Your task to perform on an android device: snooze an email in the gmail app Image 0: 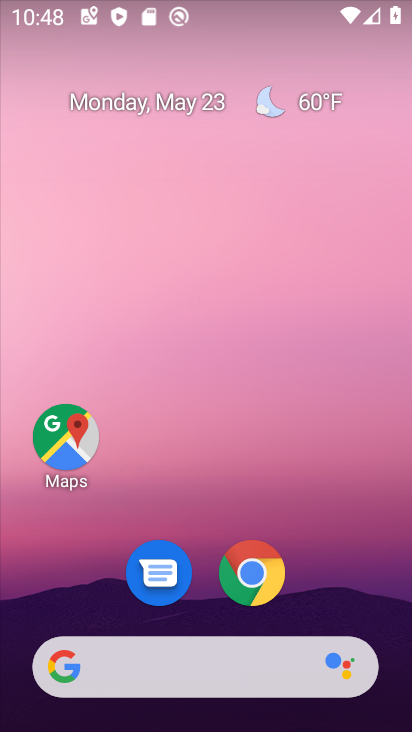
Step 0: drag from (348, 594) to (240, 43)
Your task to perform on an android device: snooze an email in the gmail app Image 1: 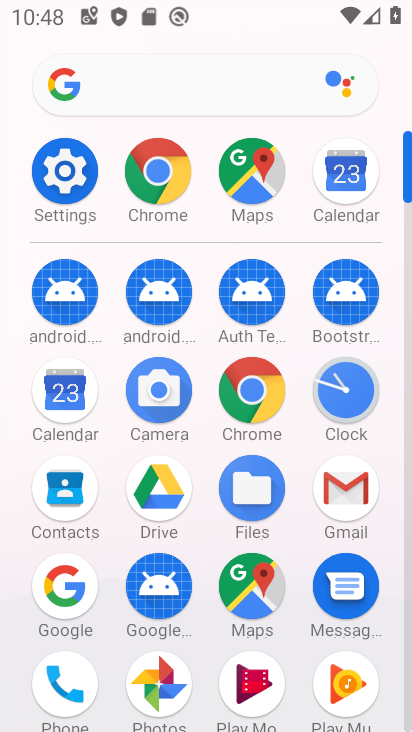
Step 1: drag from (16, 541) to (26, 222)
Your task to perform on an android device: snooze an email in the gmail app Image 2: 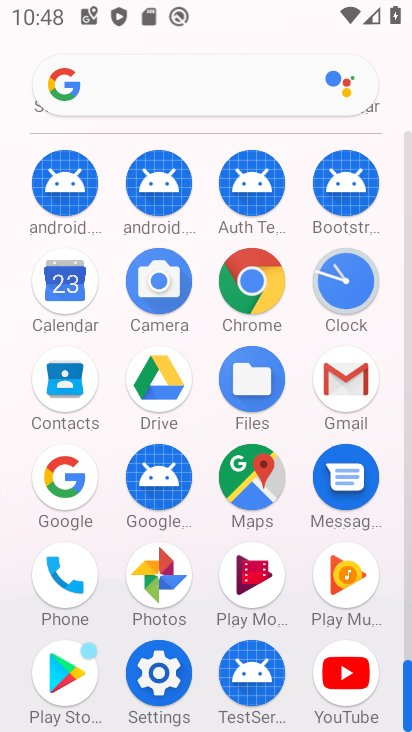
Step 2: click (348, 375)
Your task to perform on an android device: snooze an email in the gmail app Image 3: 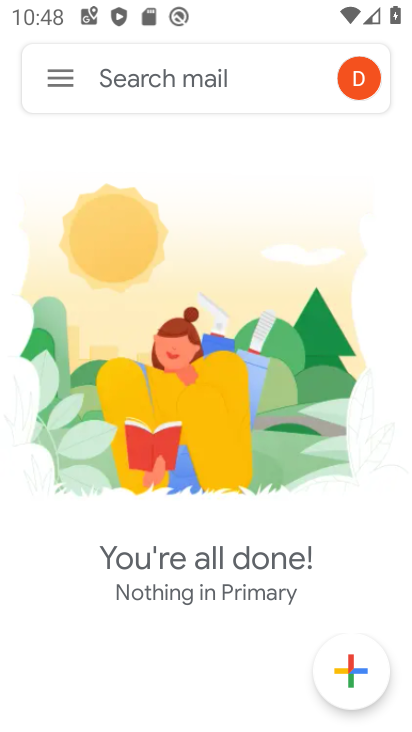
Step 3: click (52, 71)
Your task to perform on an android device: snooze an email in the gmail app Image 4: 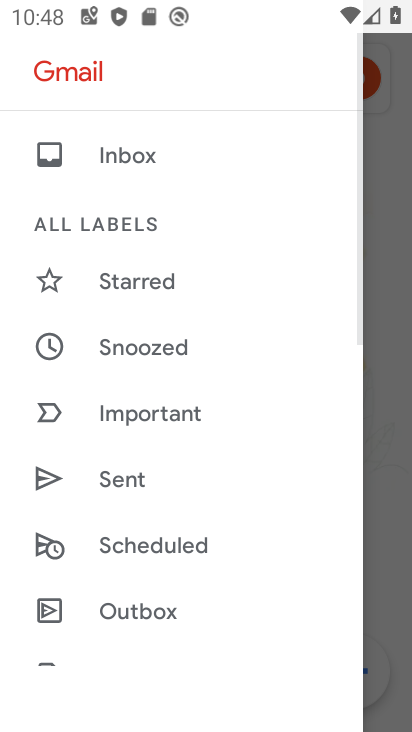
Step 4: click (142, 353)
Your task to perform on an android device: snooze an email in the gmail app Image 5: 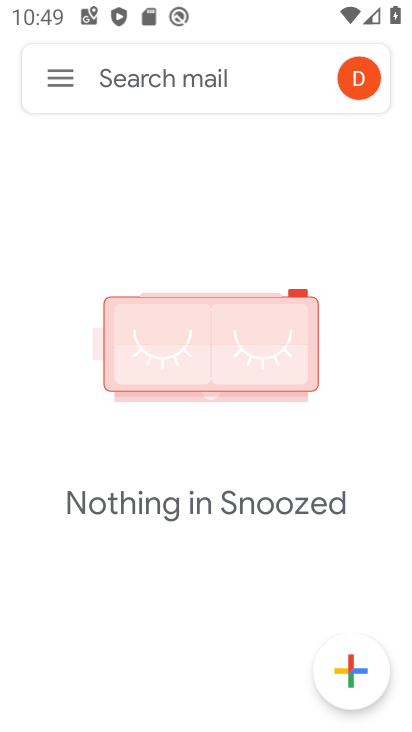
Step 5: task complete